Your task to perform on an android device: add a contact Image 0: 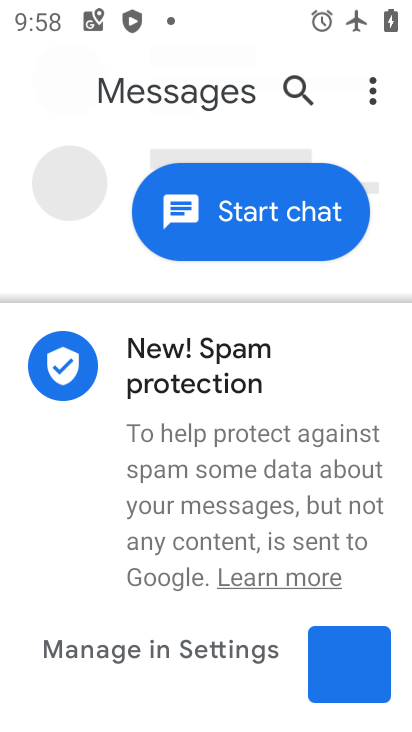
Step 0: press home button
Your task to perform on an android device: add a contact Image 1: 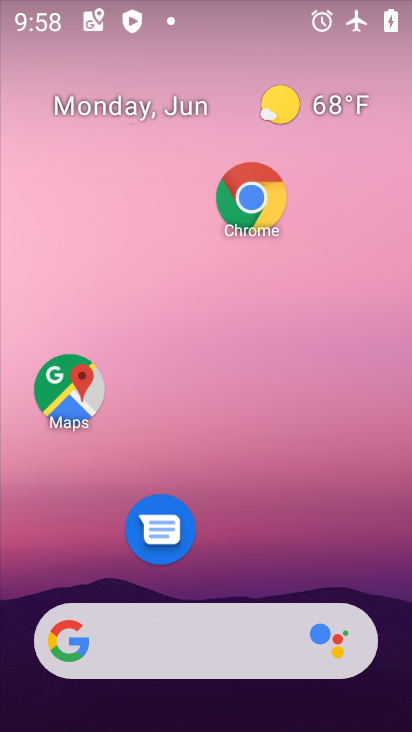
Step 1: drag from (212, 552) to (224, 183)
Your task to perform on an android device: add a contact Image 2: 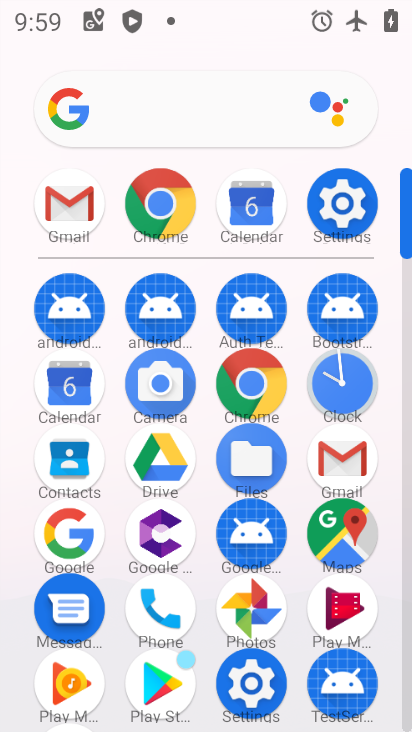
Step 2: click (64, 450)
Your task to perform on an android device: add a contact Image 3: 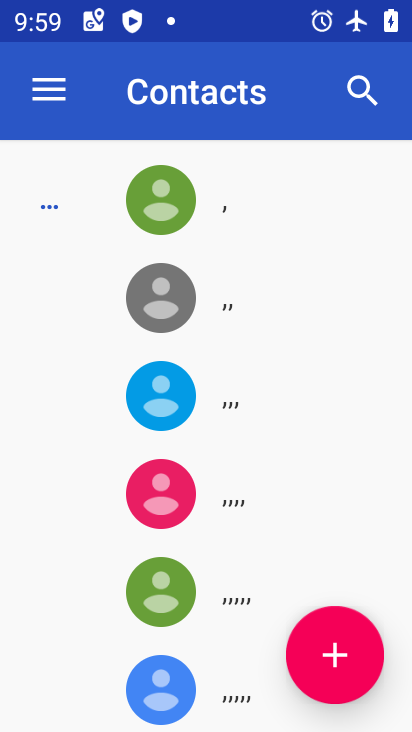
Step 3: click (323, 647)
Your task to perform on an android device: add a contact Image 4: 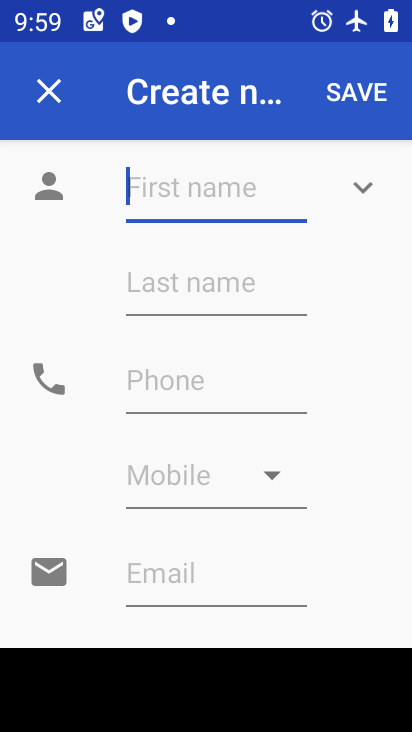
Step 4: type "dgmghm"
Your task to perform on an android device: add a contact Image 5: 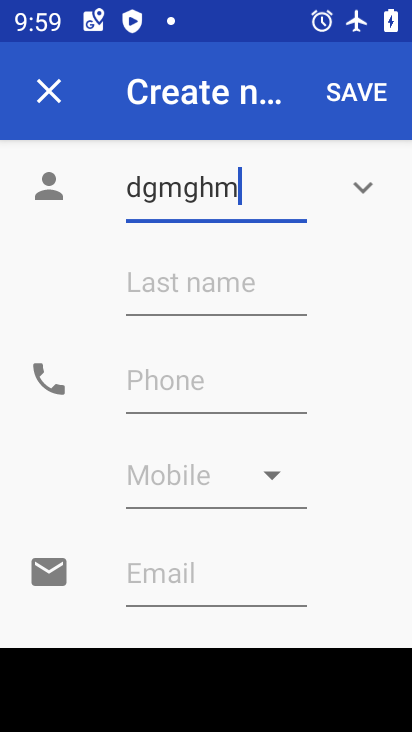
Step 5: click (216, 374)
Your task to perform on an android device: add a contact Image 6: 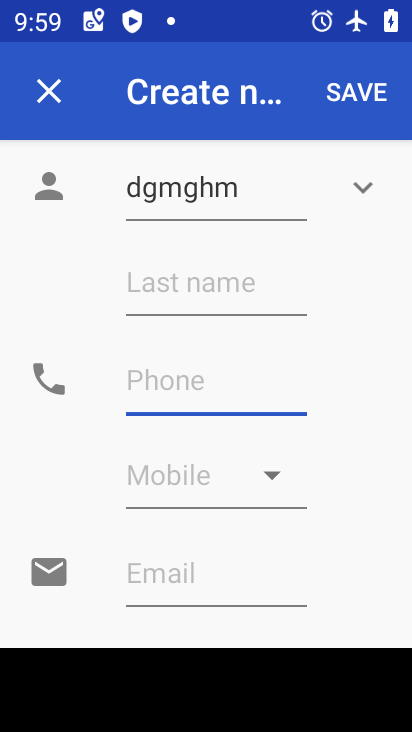
Step 6: type "97678456"
Your task to perform on an android device: add a contact Image 7: 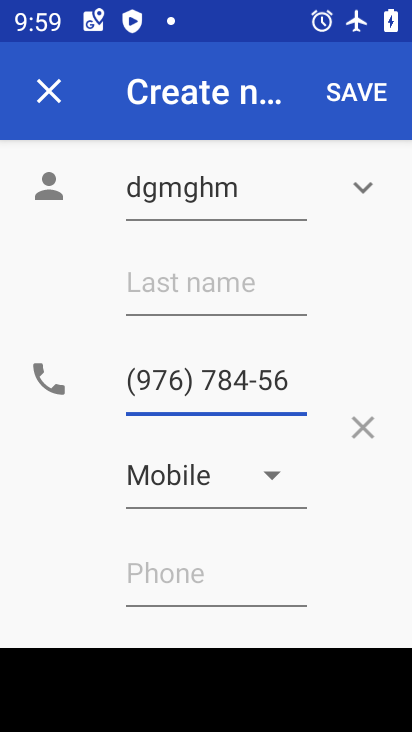
Step 7: click (367, 91)
Your task to perform on an android device: add a contact Image 8: 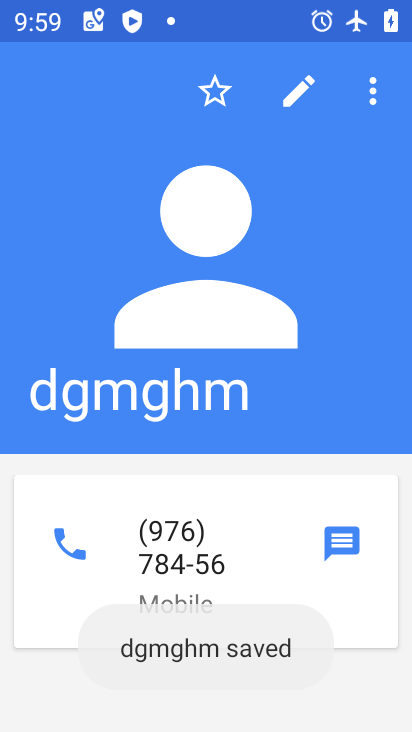
Step 8: task complete